Your task to perform on an android device: Go to ESPN.com Image 0: 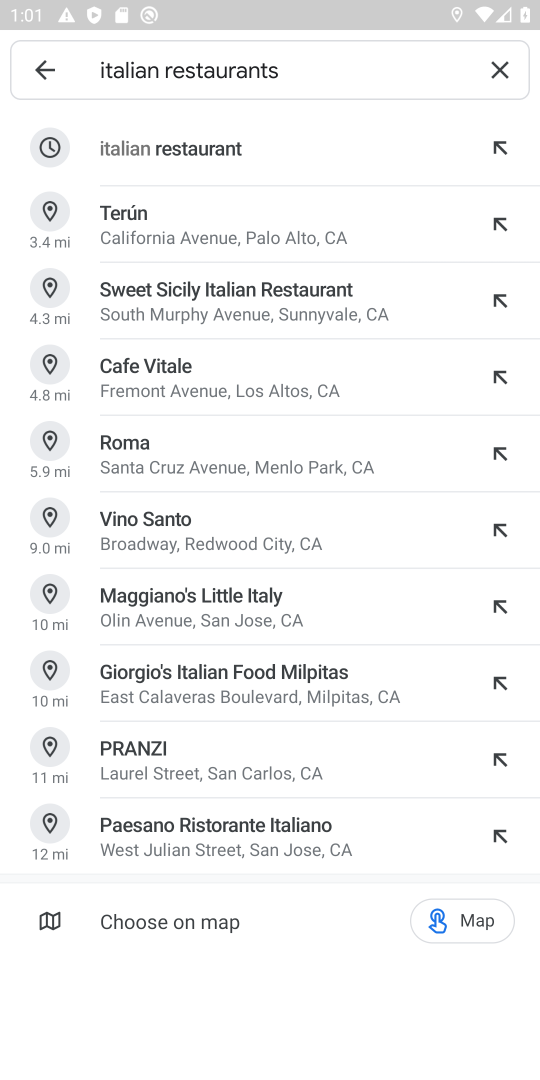
Step 0: press home button
Your task to perform on an android device: Go to ESPN.com Image 1: 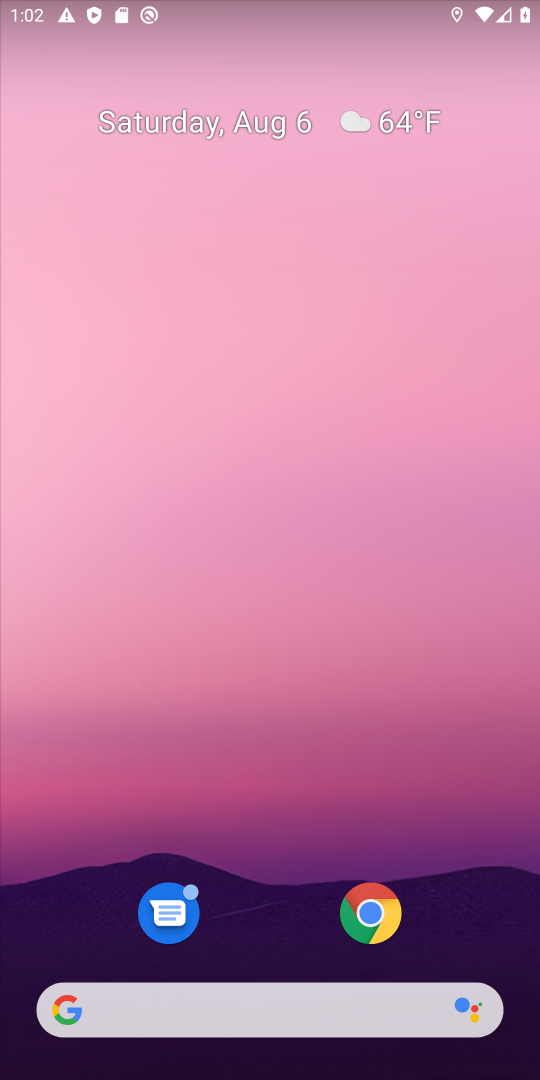
Step 1: drag from (449, 937) to (453, 208)
Your task to perform on an android device: Go to ESPN.com Image 2: 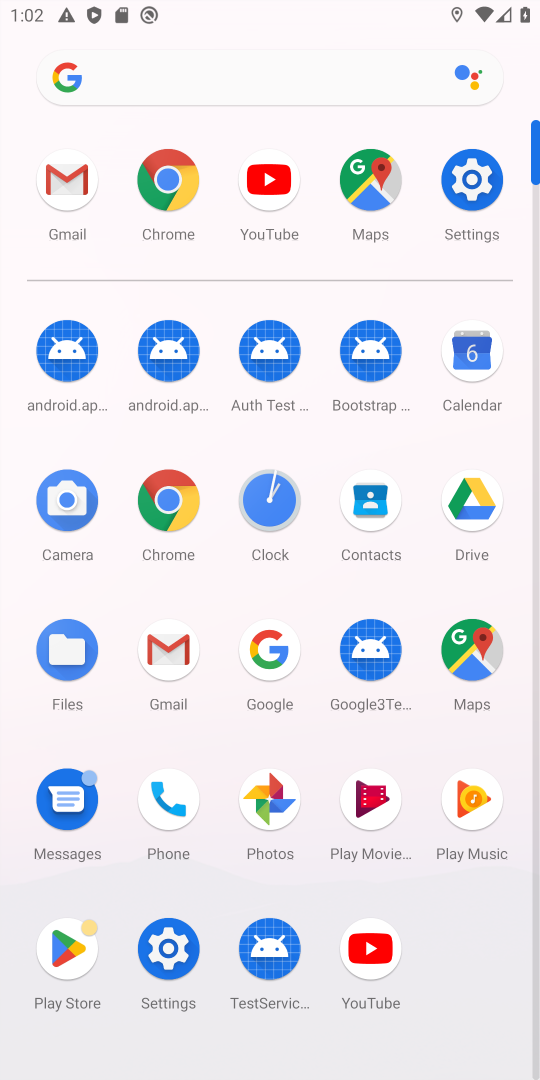
Step 2: click (168, 497)
Your task to perform on an android device: Go to ESPN.com Image 3: 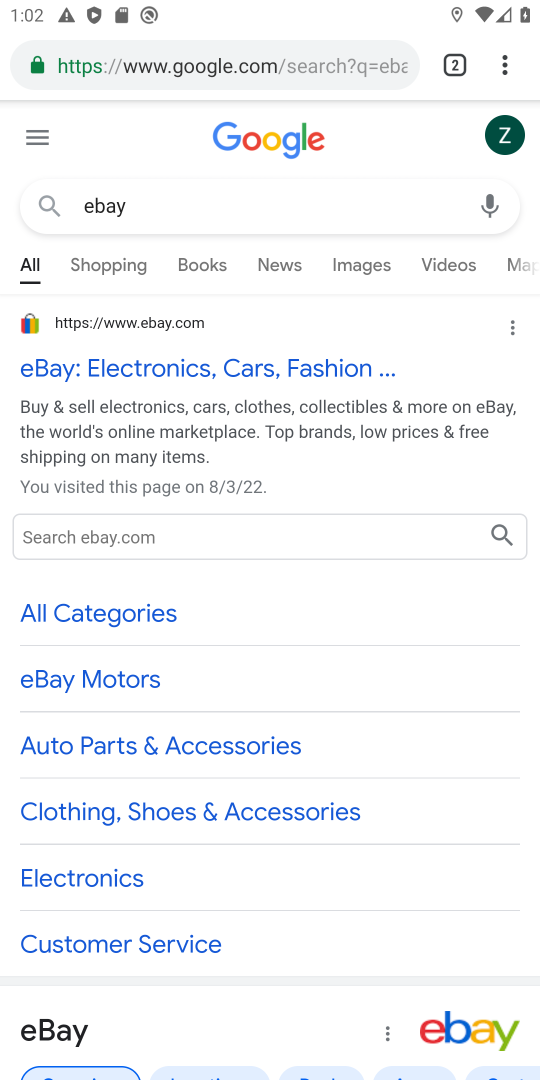
Step 3: click (301, 69)
Your task to perform on an android device: Go to ESPN.com Image 4: 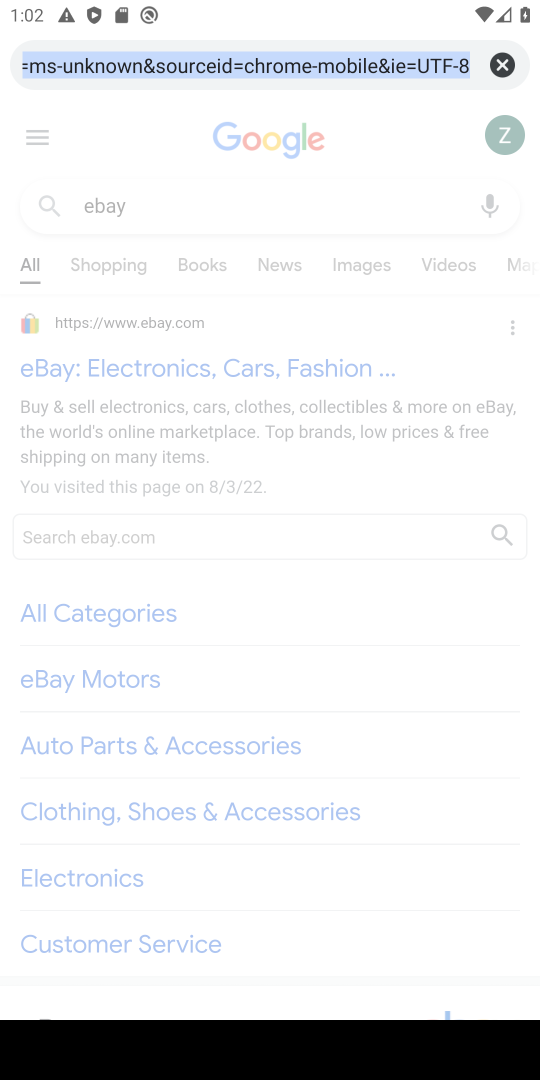
Step 4: type "esp;an.com"
Your task to perform on an android device: Go to ESPN.com Image 5: 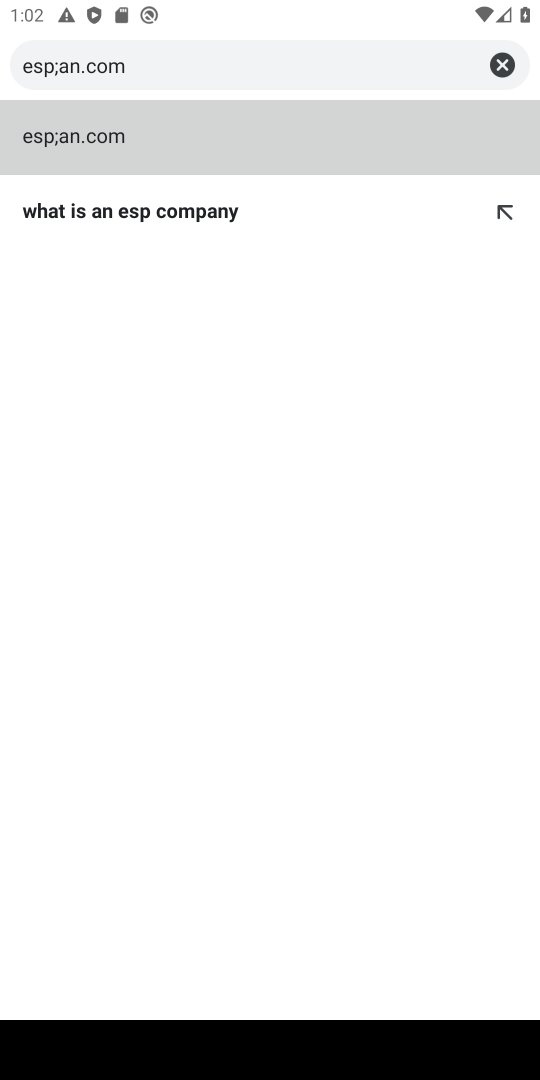
Step 5: click (146, 135)
Your task to perform on an android device: Go to ESPN.com Image 6: 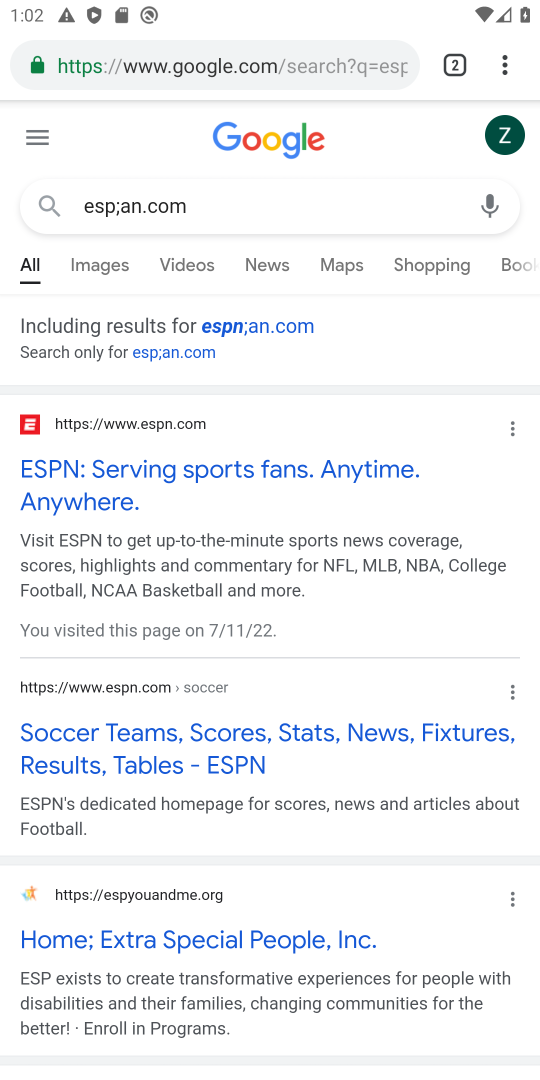
Step 6: task complete